Your task to perform on an android device: Open the calendar app, open the side menu, and click the "Day" option Image 0: 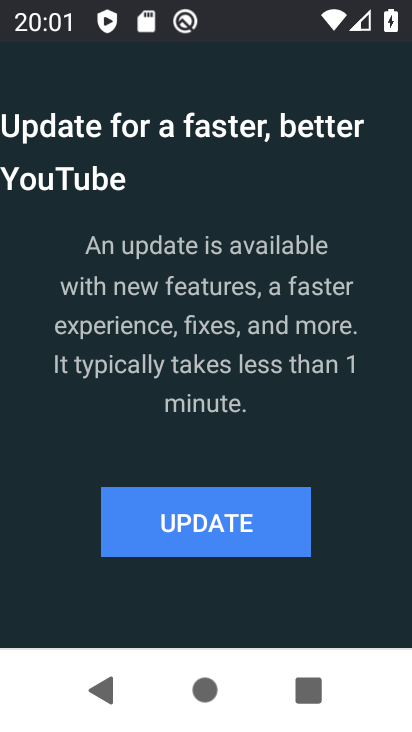
Step 0: press home button
Your task to perform on an android device: Open the calendar app, open the side menu, and click the "Day" option Image 1: 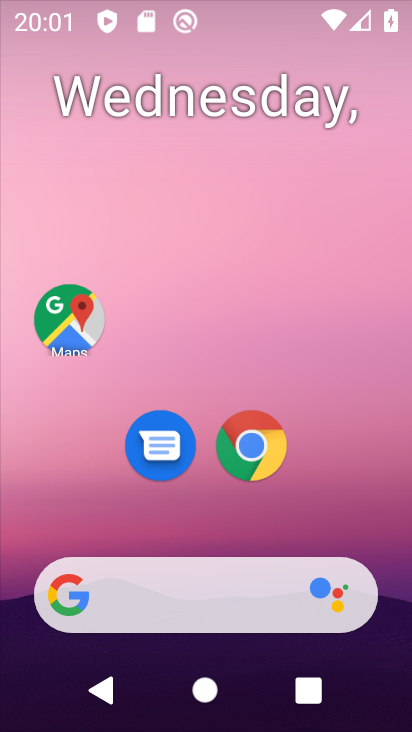
Step 1: drag from (323, 581) to (323, 170)
Your task to perform on an android device: Open the calendar app, open the side menu, and click the "Day" option Image 2: 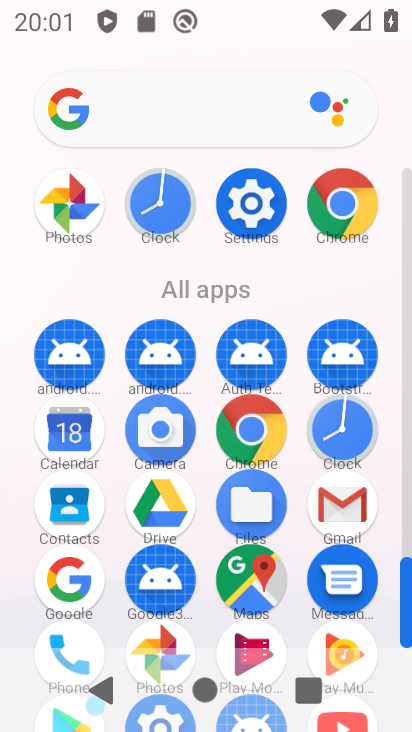
Step 2: click (54, 426)
Your task to perform on an android device: Open the calendar app, open the side menu, and click the "Day" option Image 3: 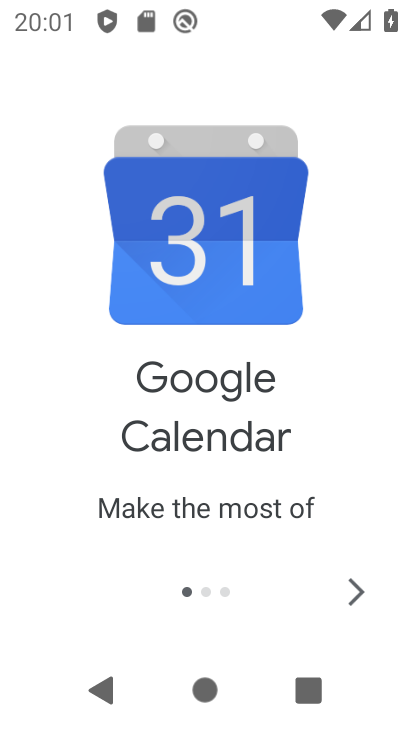
Step 3: click (344, 580)
Your task to perform on an android device: Open the calendar app, open the side menu, and click the "Day" option Image 4: 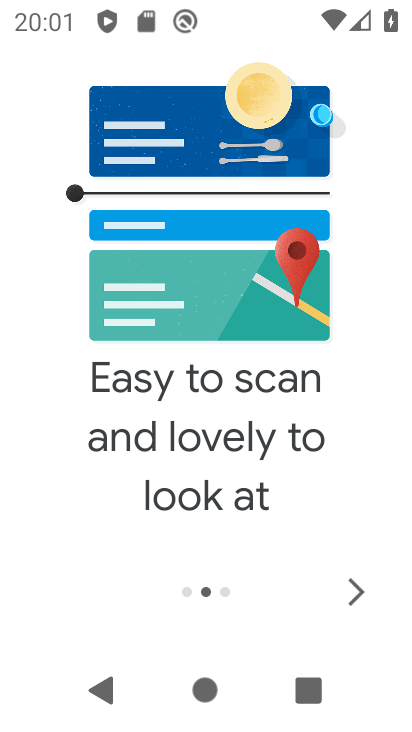
Step 4: click (344, 590)
Your task to perform on an android device: Open the calendar app, open the side menu, and click the "Day" option Image 5: 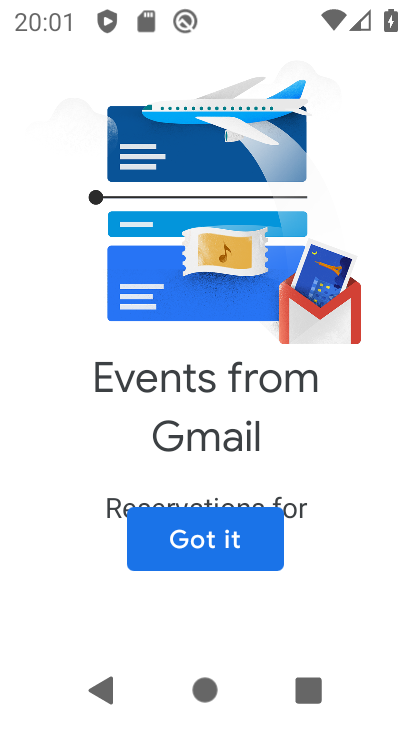
Step 5: click (344, 590)
Your task to perform on an android device: Open the calendar app, open the side menu, and click the "Day" option Image 6: 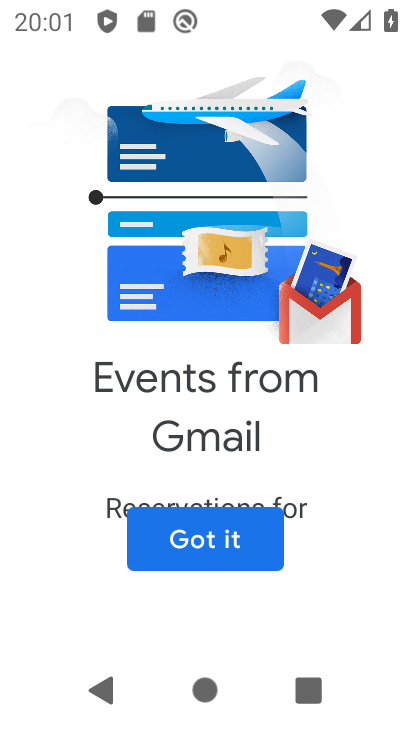
Step 6: click (230, 520)
Your task to perform on an android device: Open the calendar app, open the side menu, and click the "Day" option Image 7: 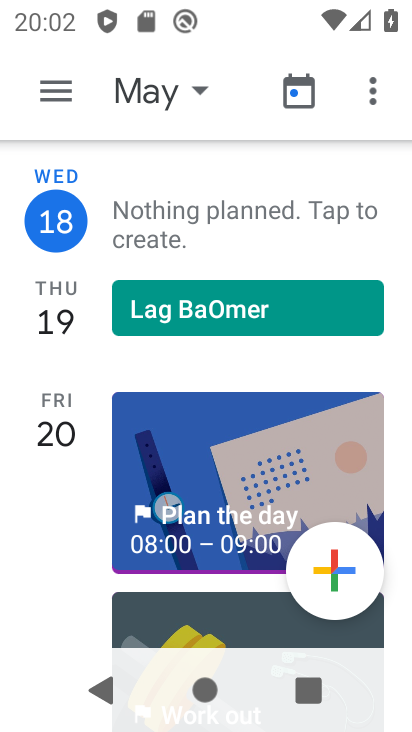
Step 7: click (72, 90)
Your task to perform on an android device: Open the calendar app, open the side menu, and click the "Day" option Image 8: 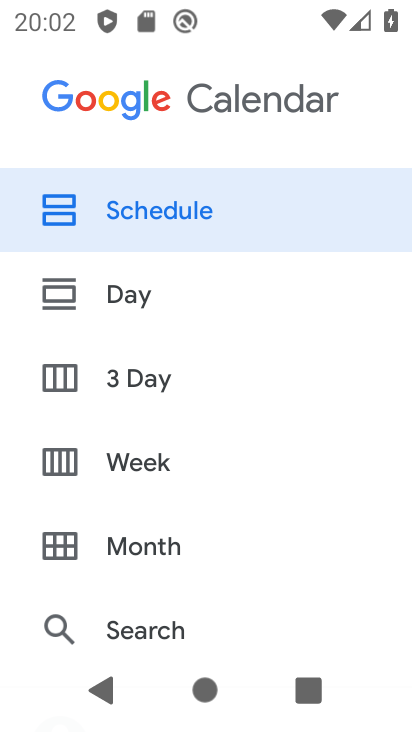
Step 8: click (159, 292)
Your task to perform on an android device: Open the calendar app, open the side menu, and click the "Day" option Image 9: 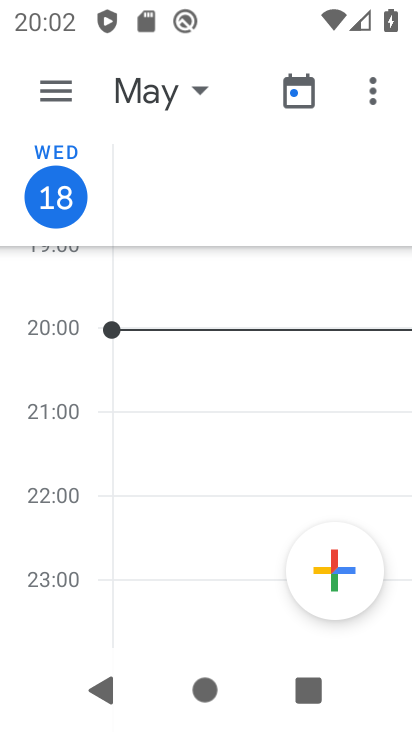
Step 9: task complete